Your task to perform on an android device: turn on improve location accuracy Image 0: 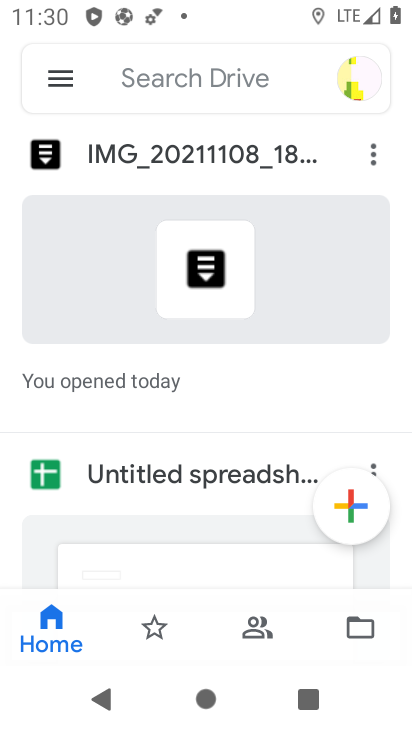
Step 0: press home button
Your task to perform on an android device: turn on improve location accuracy Image 1: 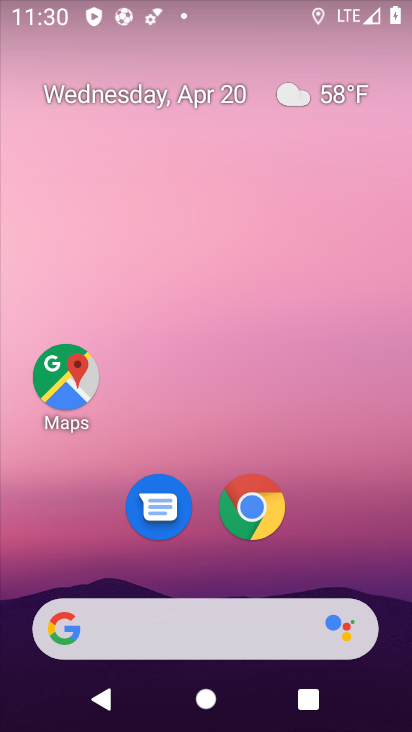
Step 1: drag from (336, 534) to (343, 136)
Your task to perform on an android device: turn on improve location accuracy Image 2: 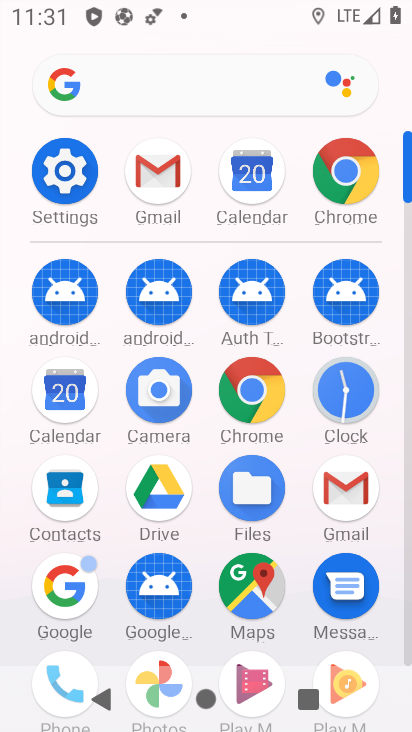
Step 2: click (63, 177)
Your task to perform on an android device: turn on improve location accuracy Image 3: 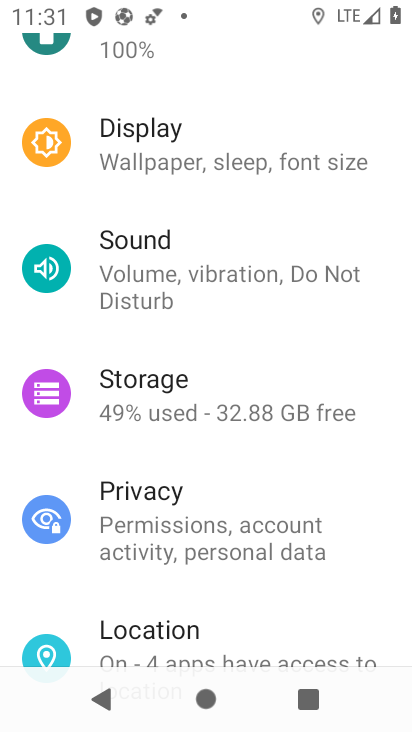
Step 3: drag from (384, 316) to (385, 440)
Your task to perform on an android device: turn on improve location accuracy Image 4: 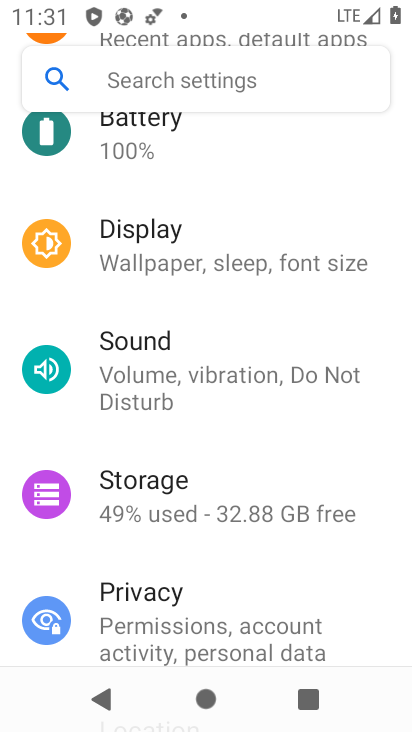
Step 4: drag from (377, 192) to (368, 404)
Your task to perform on an android device: turn on improve location accuracy Image 5: 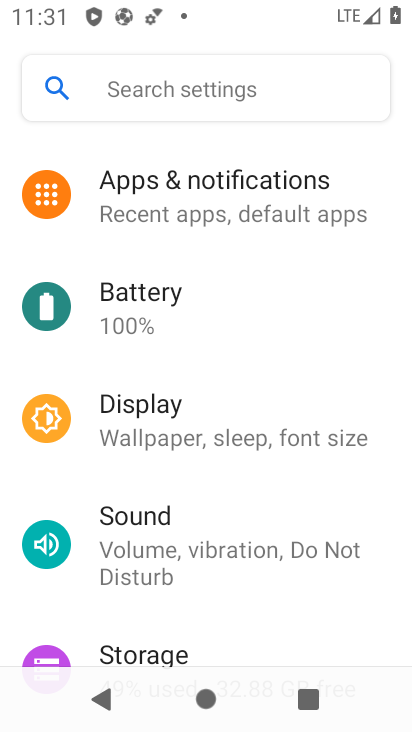
Step 5: drag from (371, 296) to (389, 549)
Your task to perform on an android device: turn on improve location accuracy Image 6: 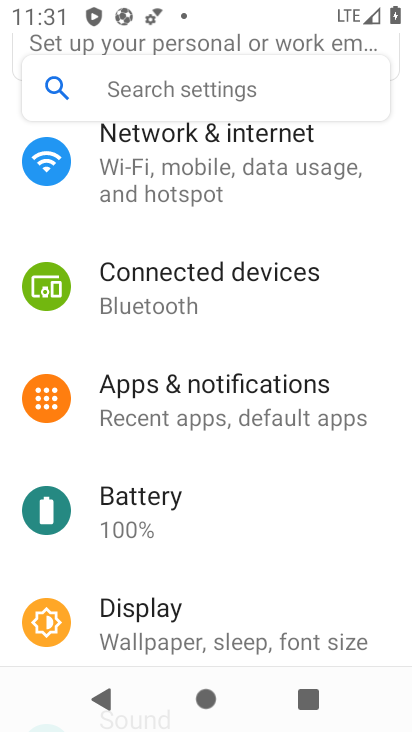
Step 6: drag from (367, 277) to (372, 503)
Your task to perform on an android device: turn on improve location accuracy Image 7: 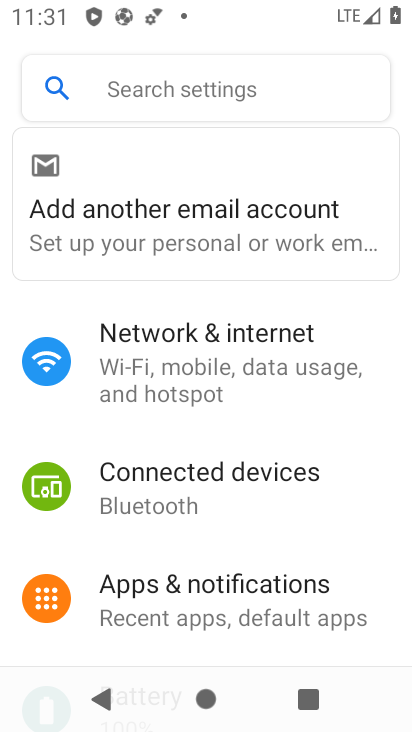
Step 7: drag from (372, 498) to (381, 309)
Your task to perform on an android device: turn on improve location accuracy Image 8: 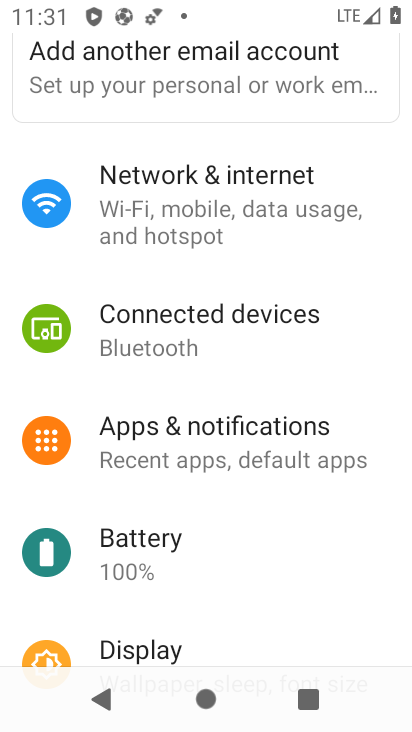
Step 8: drag from (369, 540) to (380, 319)
Your task to perform on an android device: turn on improve location accuracy Image 9: 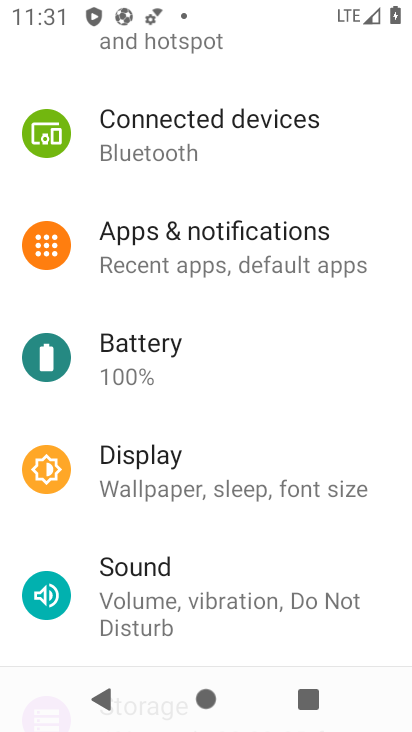
Step 9: drag from (375, 547) to (386, 282)
Your task to perform on an android device: turn on improve location accuracy Image 10: 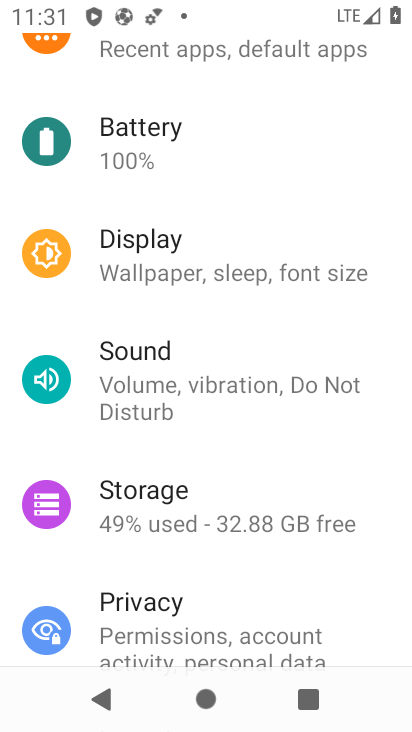
Step 10: drag from (380, 573) to (391, 354)
Your task to perform on an android device: turn on improve location accuracy Image 11: 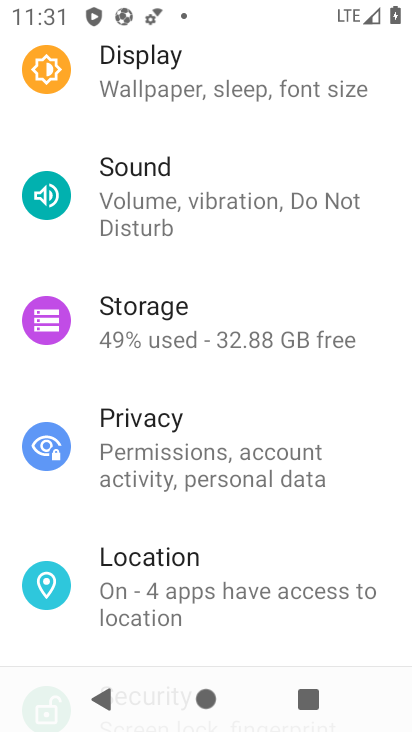
Step 11: drag from (372, 509) to (384, 339)
Your task to perform on an android device: turn on improve location accuracy Image 12: 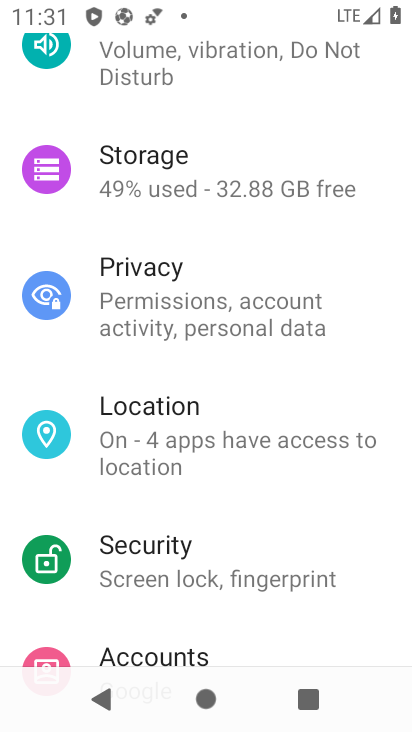
Step 12: click (208, 413)
Your task to perform on an android device: turn on improve location accuracy Image 13: 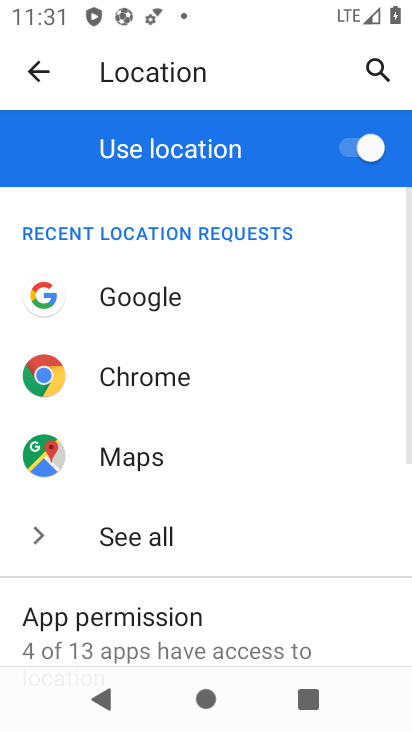
Step 13: drag from (339, 560) to (343, 276)
Your task to perform on an android device: turn on improve location accuracy Image 14: 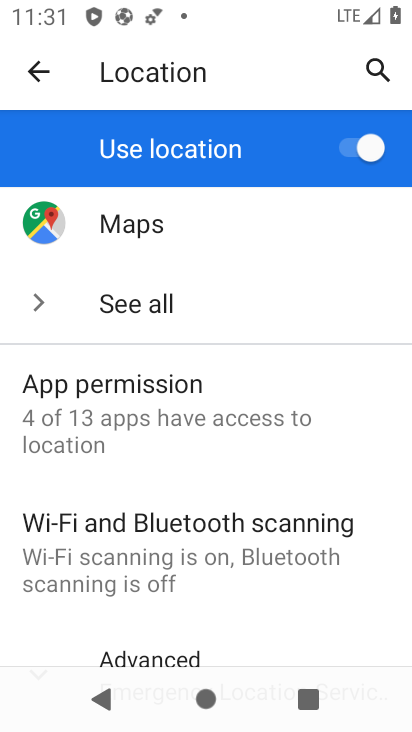
Step 14: drag from (359, 598) to (368, 338)
Your task to perform on an android device: turn on improve location accuracy Image 15: 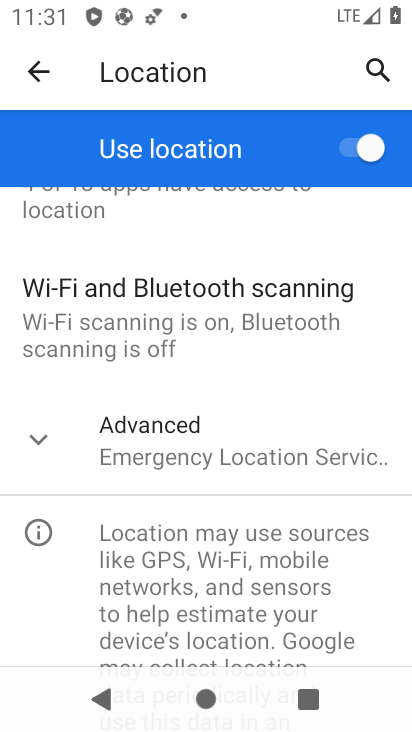
Step 15: click (288, 451)
Your task to perform on an android device: turn on improve location accuracy Image 16: 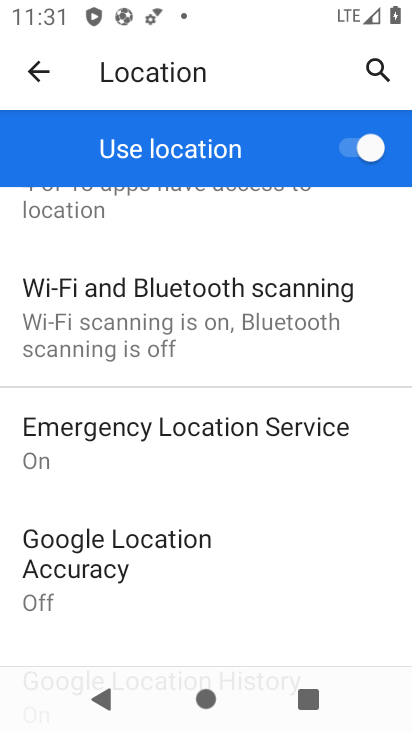
Step 16: drag from (300, 580) to (352, 333)
Your task to perform on an android device: turn on improve location accuracy Image 17: 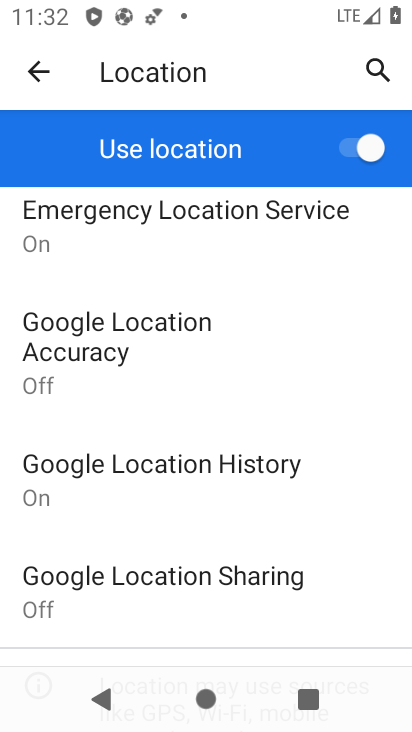
Step 17: click (78, 360)
Your task to perform on an android device: turn on improve location accuracy Image 18: 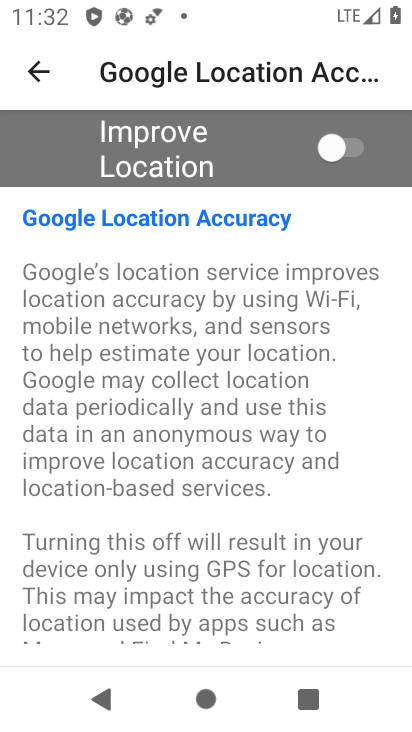
Step 18: click (339, 144)
Your task to perform on an android device: turn on improve location accuracy Image 19: 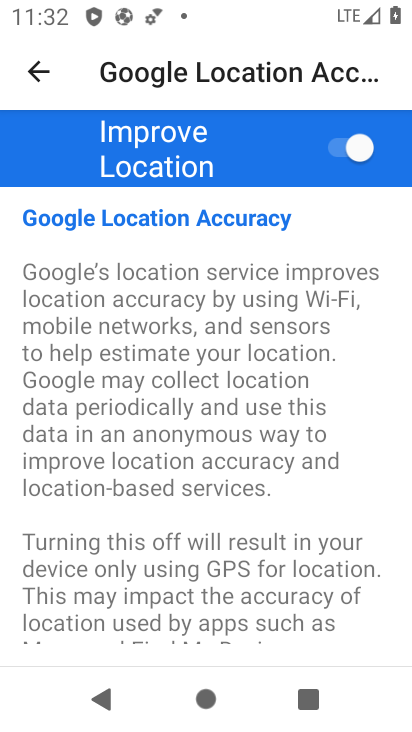
Step 19: task complete